Your task to perform on an android device: Open maps Image 0: 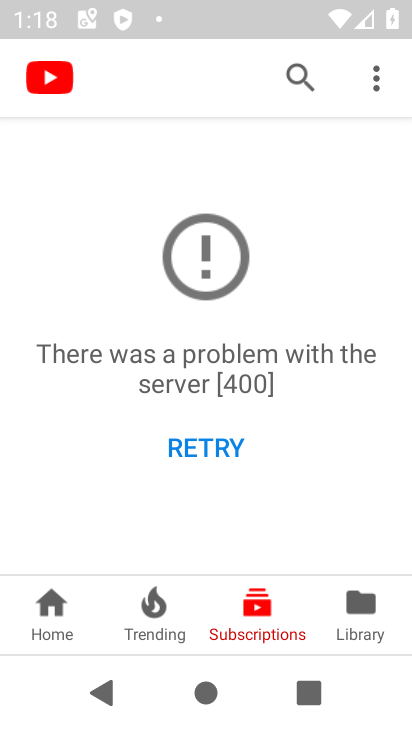
Step 0: press home button
Your task to perform on an android device: Open maps Image 1: 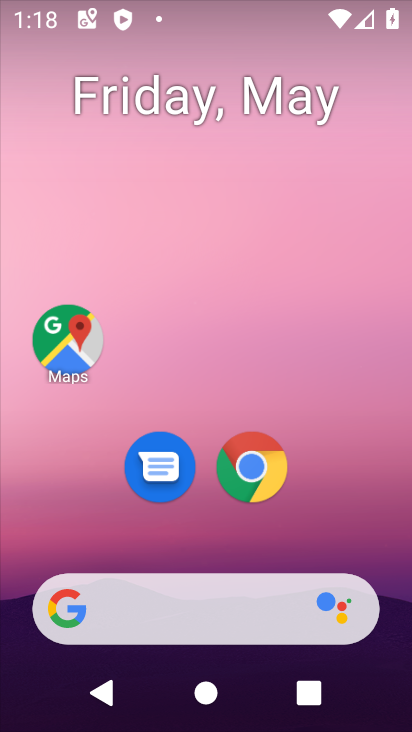
Step 1: click (66, 346)
Your task to perform on an android device: Open maps Image 2: 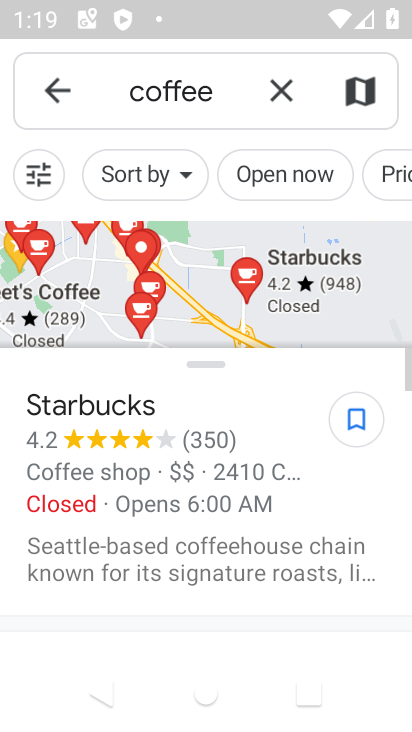
Step 2: click (285, 82)
Your task to perform on an android device: Open maps Image 3: 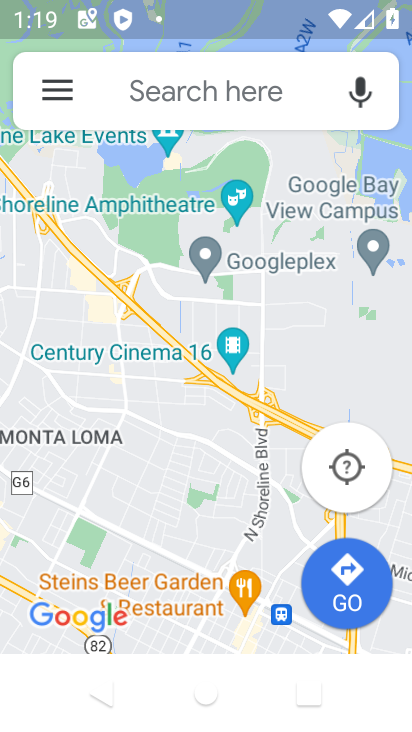
Step 3: task complete